Your task to perform on an android device: toggle notifications settings in the gmail app Image 0: 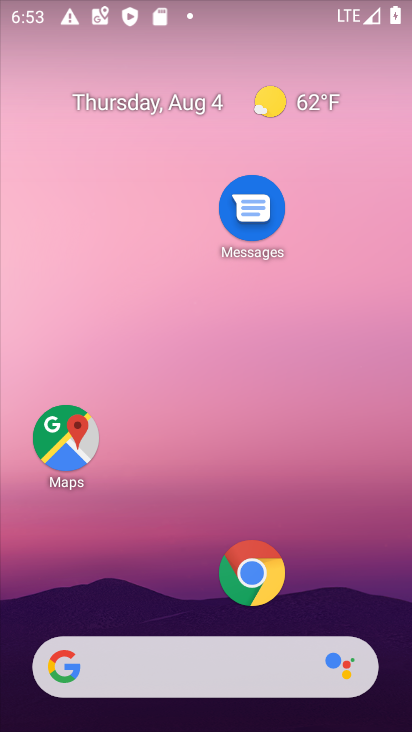
Step 0: press home button
Your task to perform on an android device: toggle notifications settings in the gmail app Image 1: 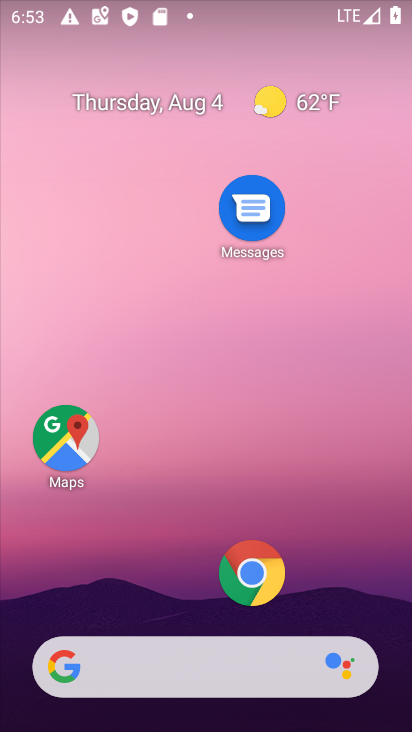
Step 1: drag from (179, 583) to (187, 164)
Your task to perform on an android device: toggle notifications settings in the gmail app Image 2: 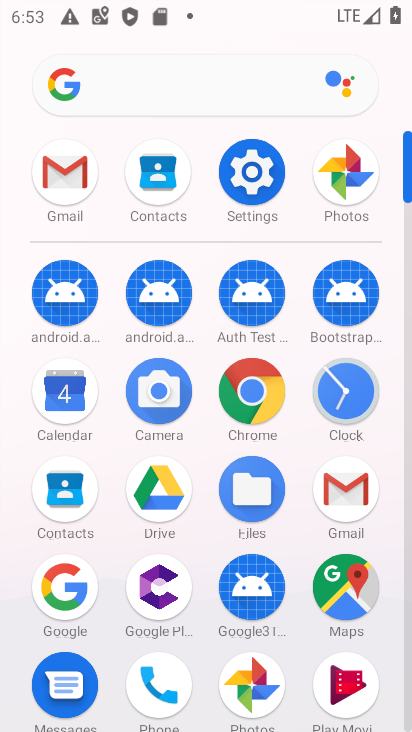
Step 2: click (241, 173)
Your task to perform on an android device: toggle notifications settings in the gmail app Image 3: 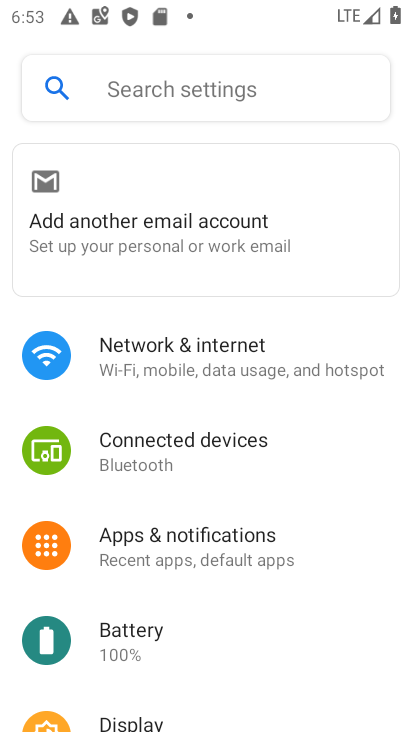
Step 3: press home button
Your task to perform on an android device: toggle notifications settings in the gmail app Image 4: 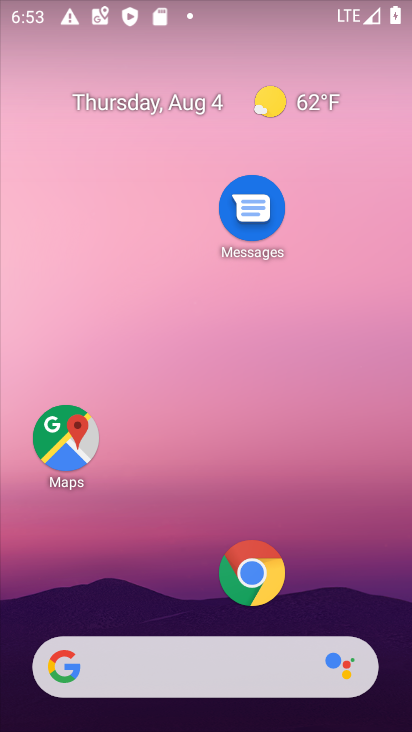
Step 4: drag from (196, 595) to (238, 82)
Your task to perform on an android device: toggle notifications settings in the gmail app Image 5: 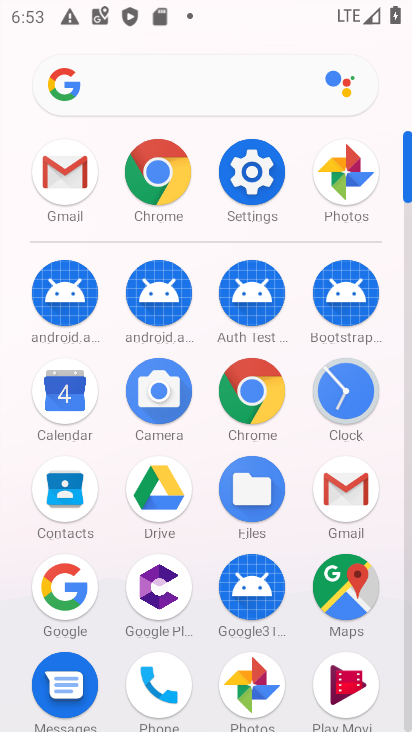
Step 5: click (79, 181)
Your task to perform on an android device: toggle notifications settings in the gmail app Image 6: 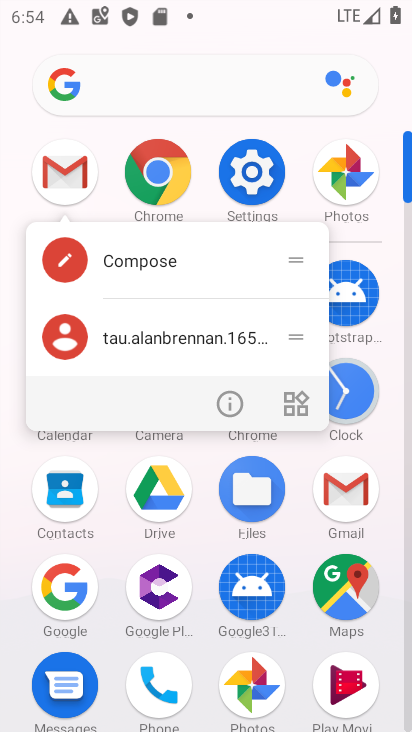
Step 6: click (79, 181)
Your task to perform on an android device: toggle notifications settings in the gmail app Image 7: 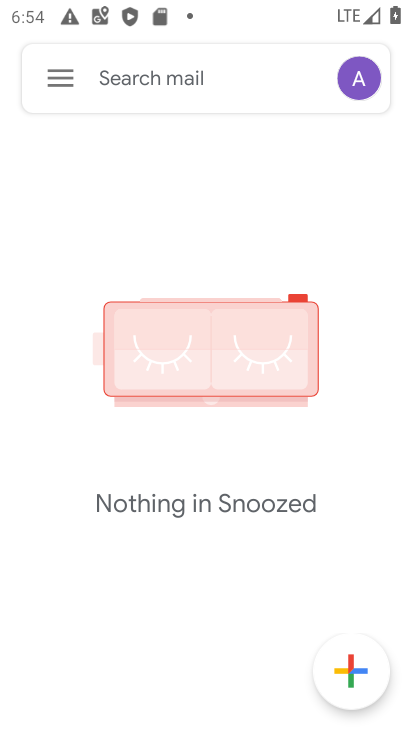
Step 7: click (49, 82)
Your task to perform on an android device: toggle notifications settings in the gmail app Image 8: 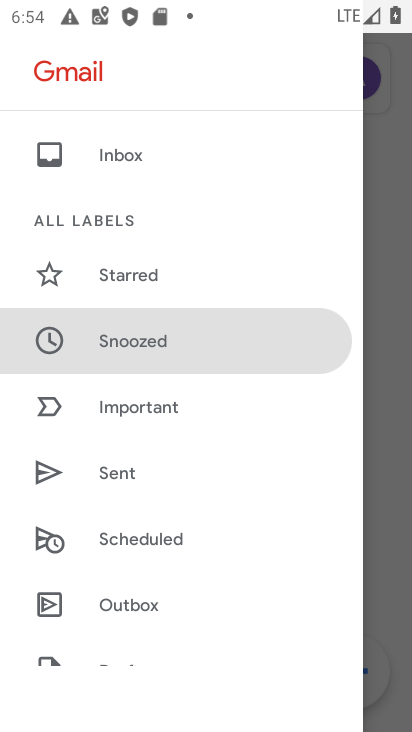
Step 8: drag from (254, 597) to (275, 223)
Your task to perform on an android device: toggle notifications settings in the gmail app Image 9: 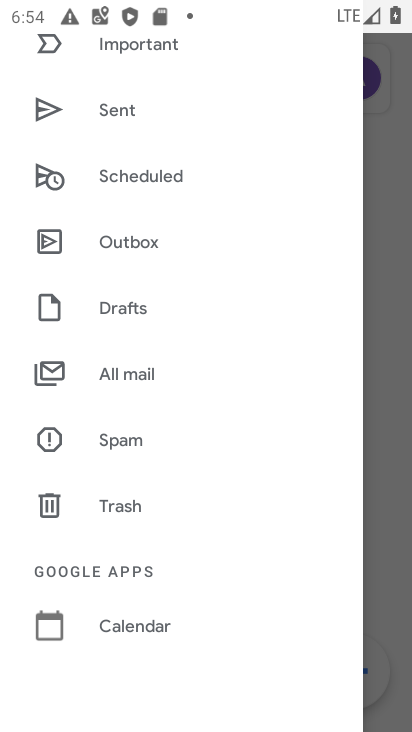
Step 9: drag from (242, 565) to (296, 208)
Your task to perform on an android device: toggle notifications settings in the gmail app Image 10: 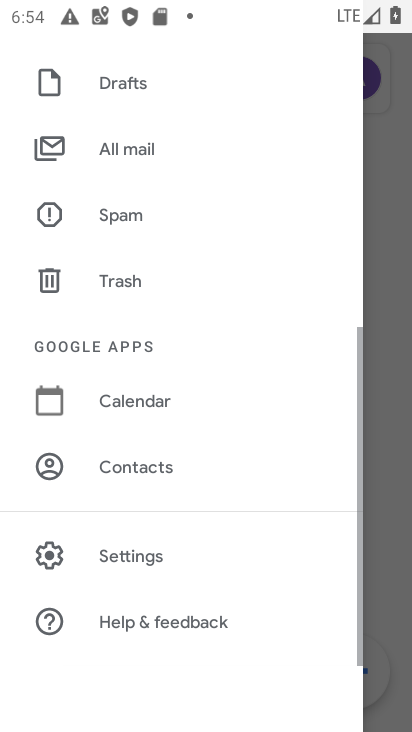
Step 10: click (117, 561)
Your task to perform on an android device: toggle notifications settings in the gmail app Image 11: 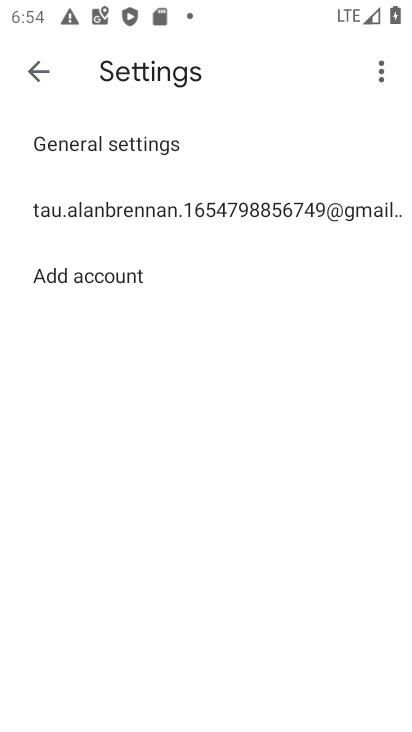
Step 11: click (165, 214)
Your task to perform on an android device: toggle notifications settings in the gmail app Image 12: 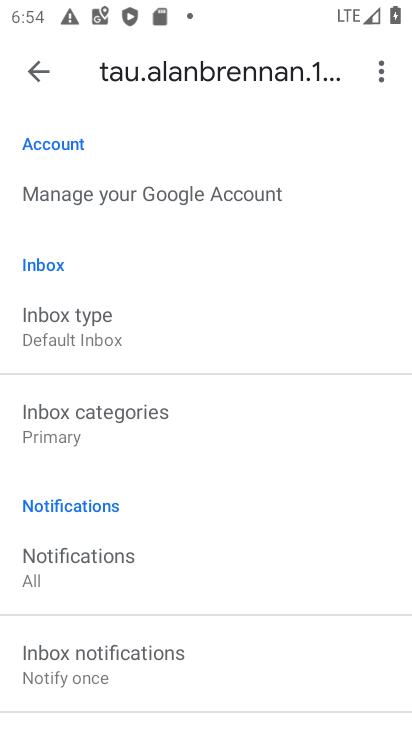
Step 12: drag from (344, 665) to (338, 279)
Your task to perform on an android device: toggle notifications settings in the gmail app Image 13: 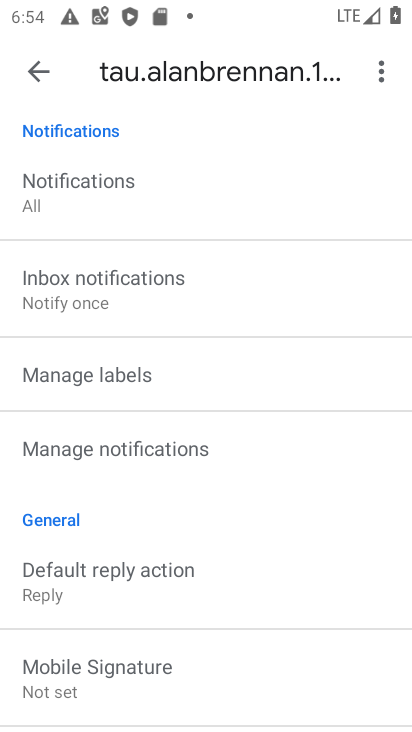
Step 13: drag from (287, 652) to (308, 381)
Your task to perform on an android device: toggle notifications settings in the gmail app Image 14: 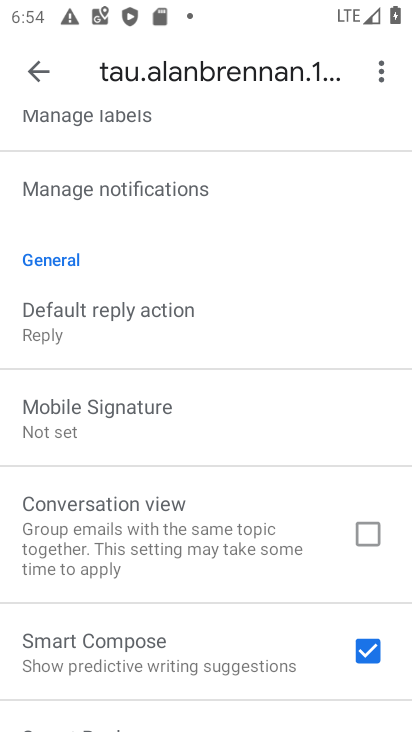
Step 14: click (112, 189)
Your task to perform on an android device: toggle notifications settings in the gmail app Image 15: 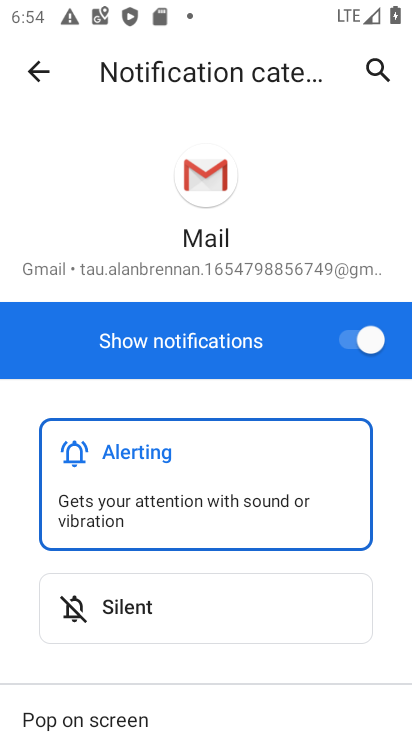
Step 15: click (368, 342)
Your task to perform on an android device: toggle notifications settings in the gmail app Image 16: 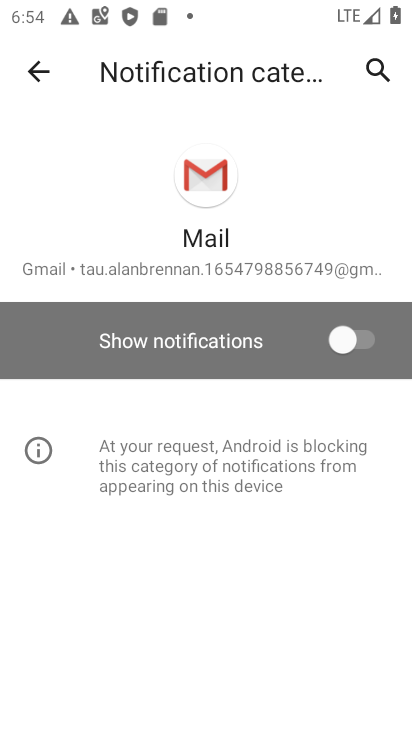
Step 16: task complete